Your task to perform on an android device: toggle data saver in the chrome app Image 0: 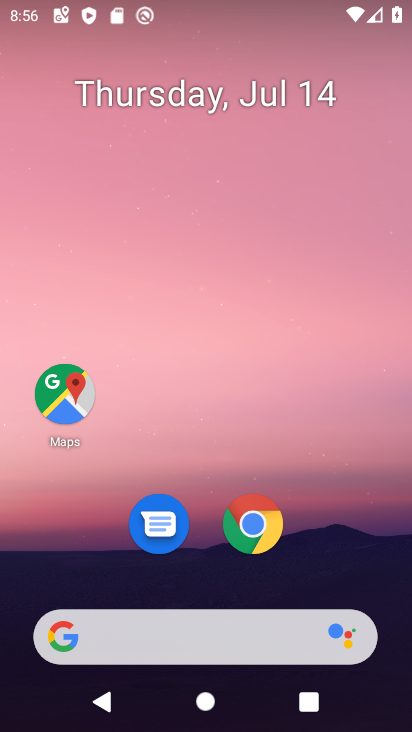
Step 0: click (249, 528)
Your task to perform on an android device: toggle data saver in the chrome app Image 1: 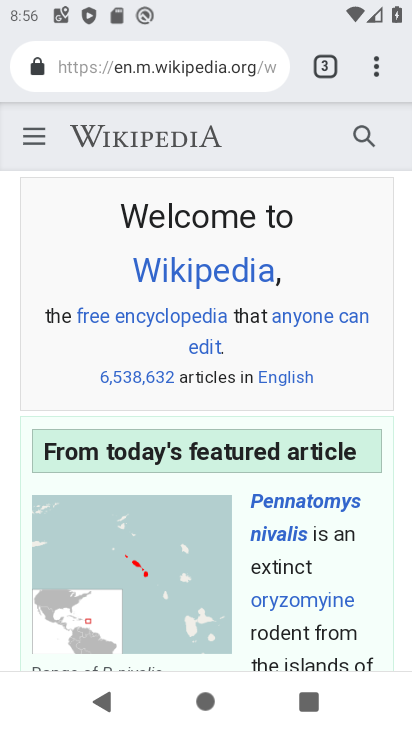
Step 1: click (373, 60)
Your task to perform on an android device: toggle data saver in the chrome app Image 2: 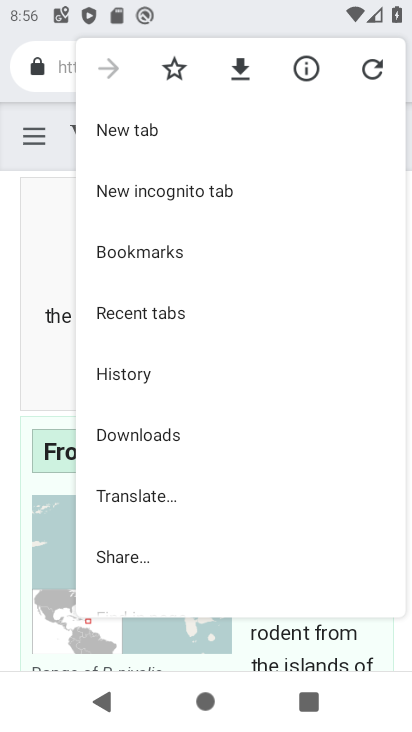
Step 2: drag from (214, 453) to (252, 114)
Your task to perform on an android device: toggle data saver in the chrome app Image 3: 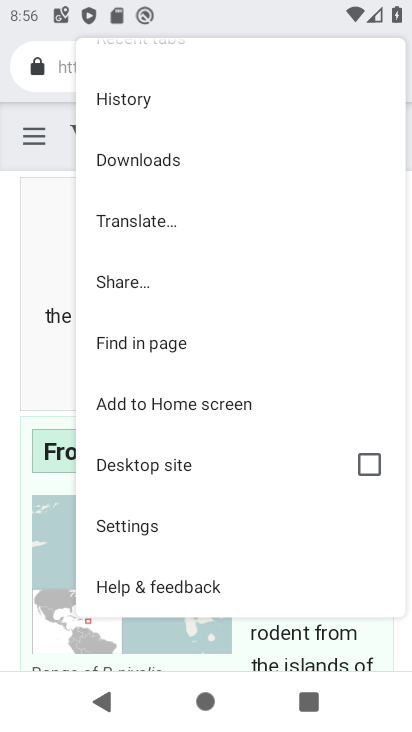
Step 3: click (155, 529)
Your task to perform on an android device: toggle data saver in the chrome app Image 4: 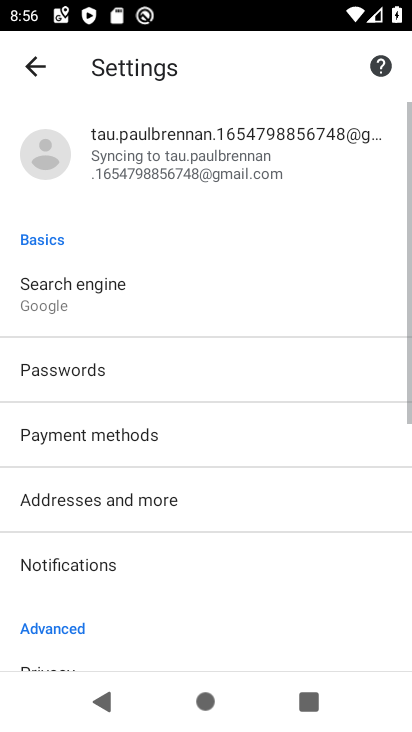
Step 4: drag from (264, 507) to (245, 0)
Your task to perform on an android device: toggle data saver in the chrome app Image 5: 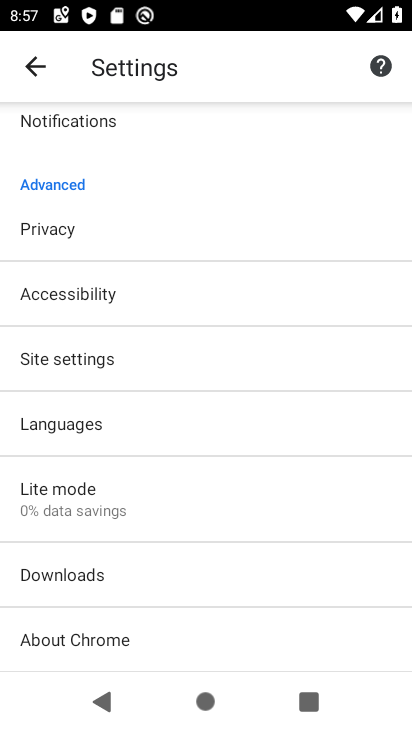
Step 5: click (124, 513)
Your task to perform on an android device: toggle data saver in the chrome app Image 6: 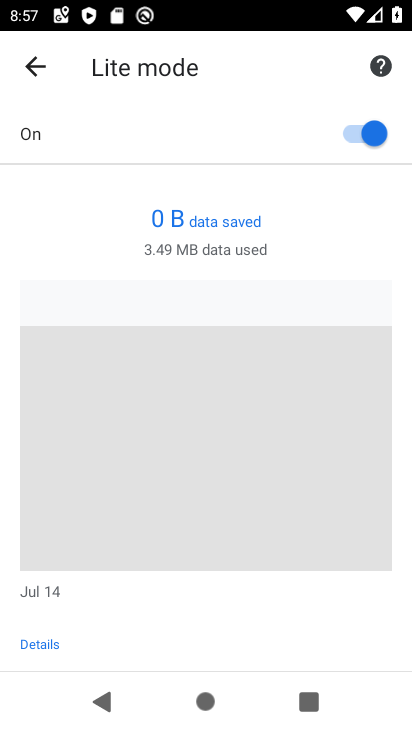
Step 6: click (360, 132)
Your task to perform on an android device: toggle data saver in the chrome app Image 7: 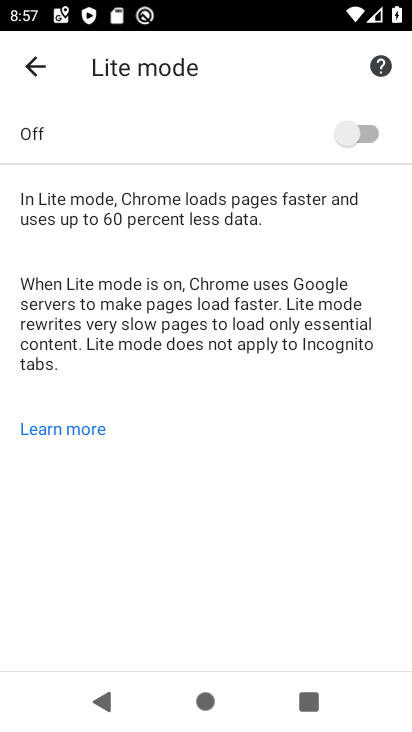
Step 7: task complete